Your task to perform on an android device: open app "Mercado Libre" (install if not already installed) Image 0: 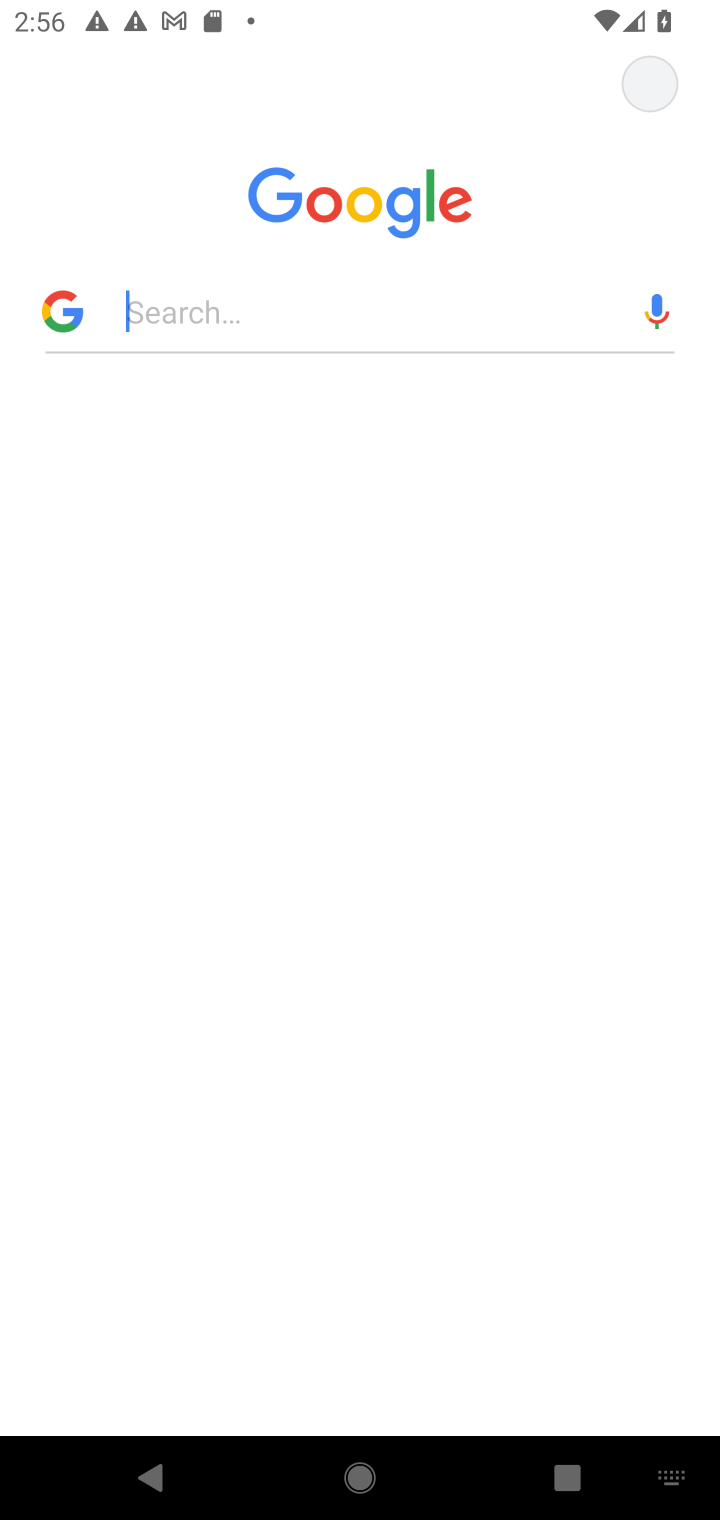
Step 0: press home button
Your task to perform on an android device: open app "Mercado Libre" (install if not already installed) Image 1: 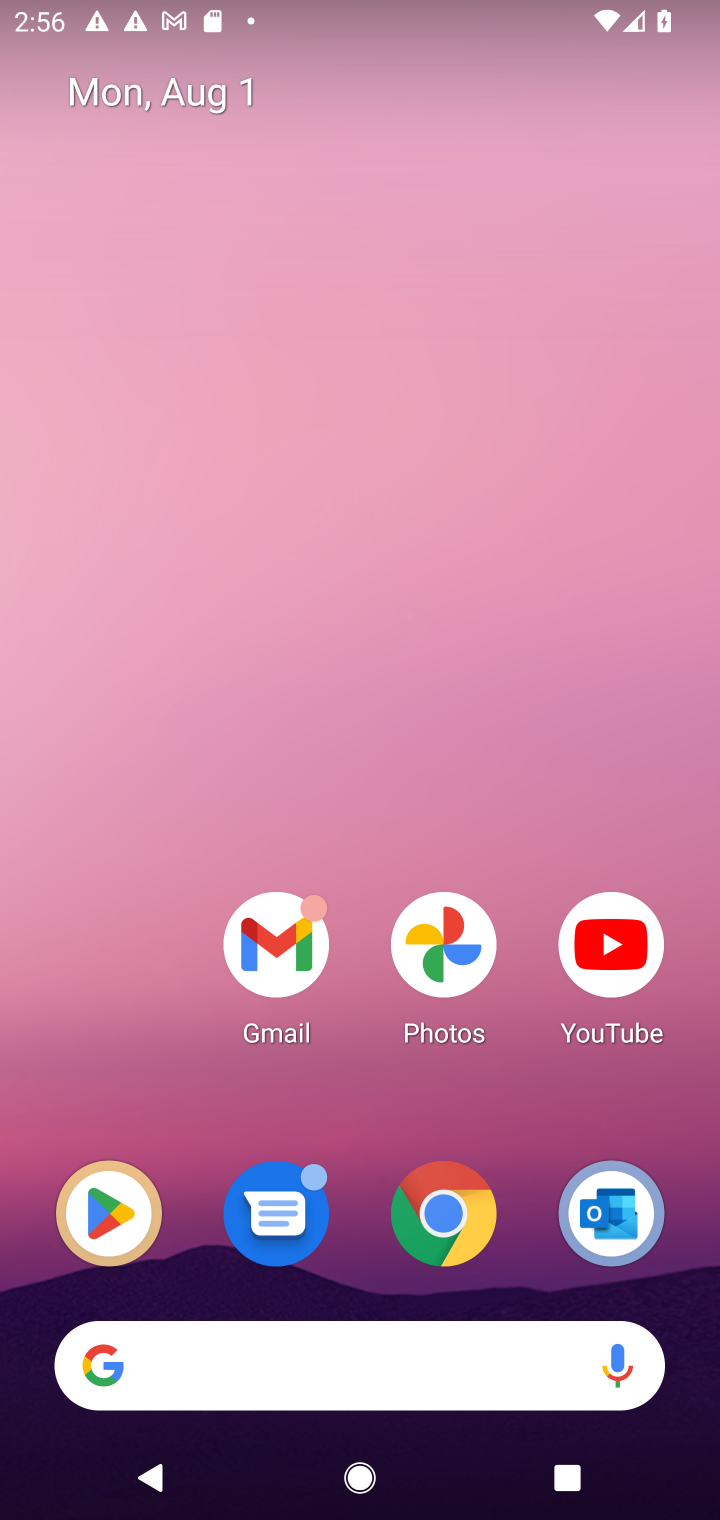
Step 1: drag from (507, 1062) to (487, 373)
Your task to perform on an android device: open app "Mercado Libre" (install if not already installed) Image 2: 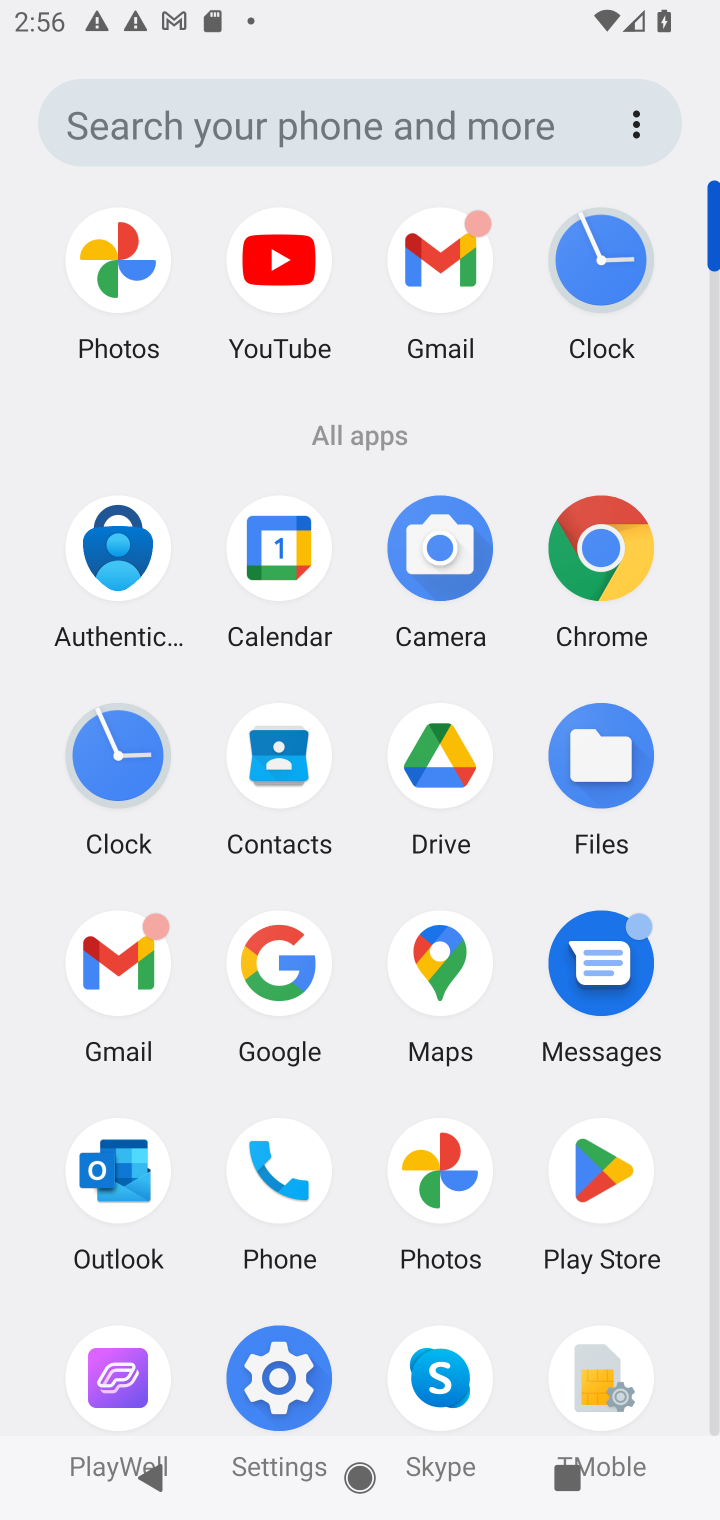
Step 2: click (622, 1157)
Your task to perform on an android device: open app "Mercado Libre" (install if not already installed) Image 3: 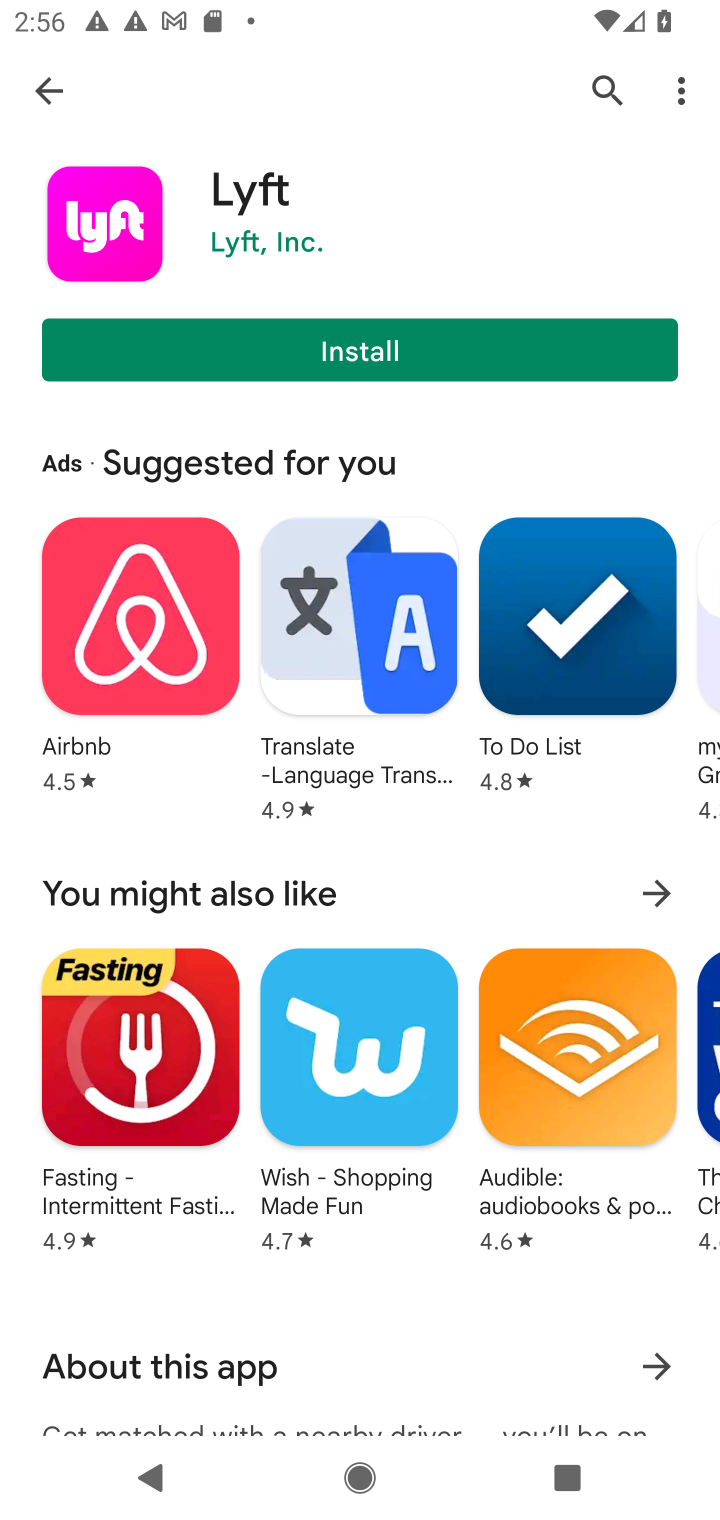
Step 3: click (599, 98)
Your task to perform on an android device: open app "Mercado Libre" (install if not already installed) Image 4: 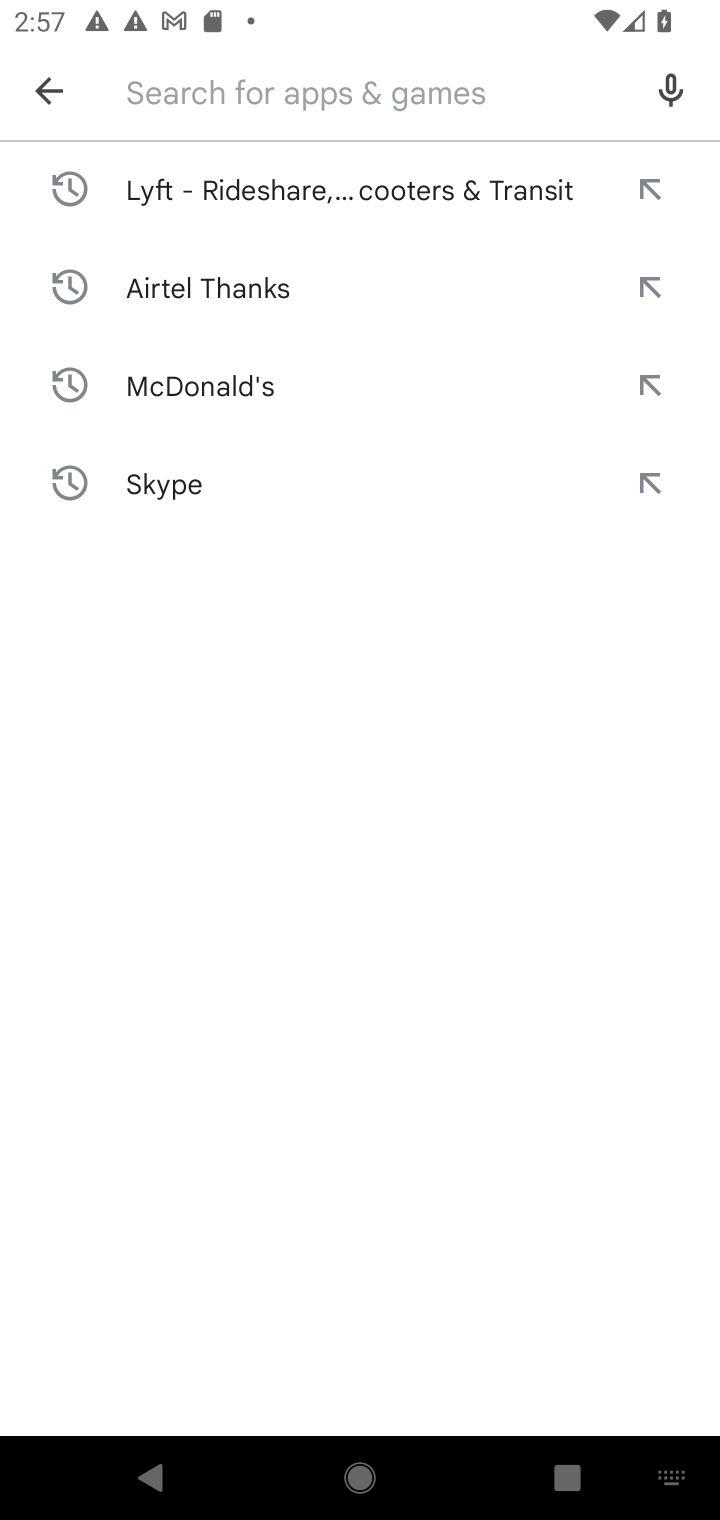
Step 4: type "Marcado Libre"
Your task to perform on an android device: open app "Mercado Libre" (install if not already installed) Image 5: 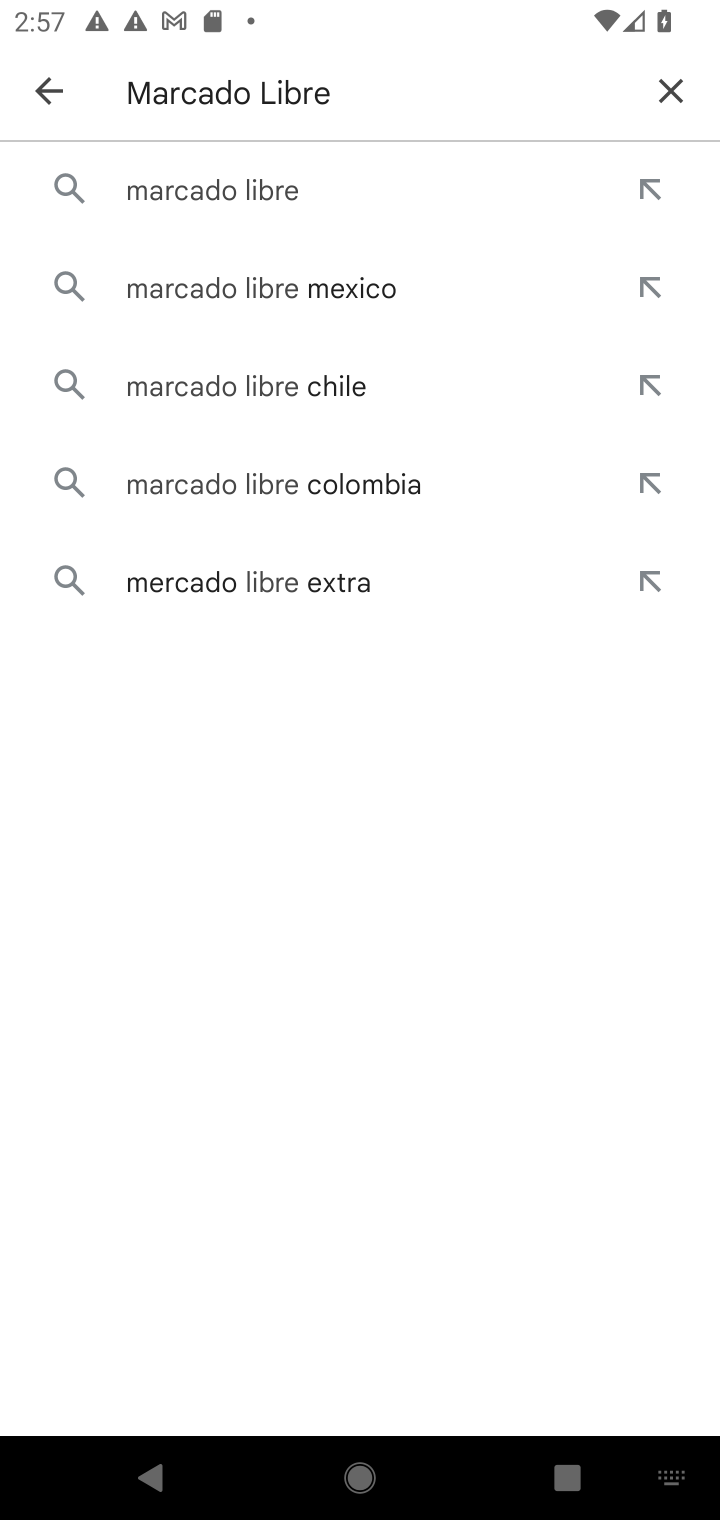
Step 5: press enter
Your task to perform on an android device: open app "Mercado Libre" (install if not already installed) Image 6: 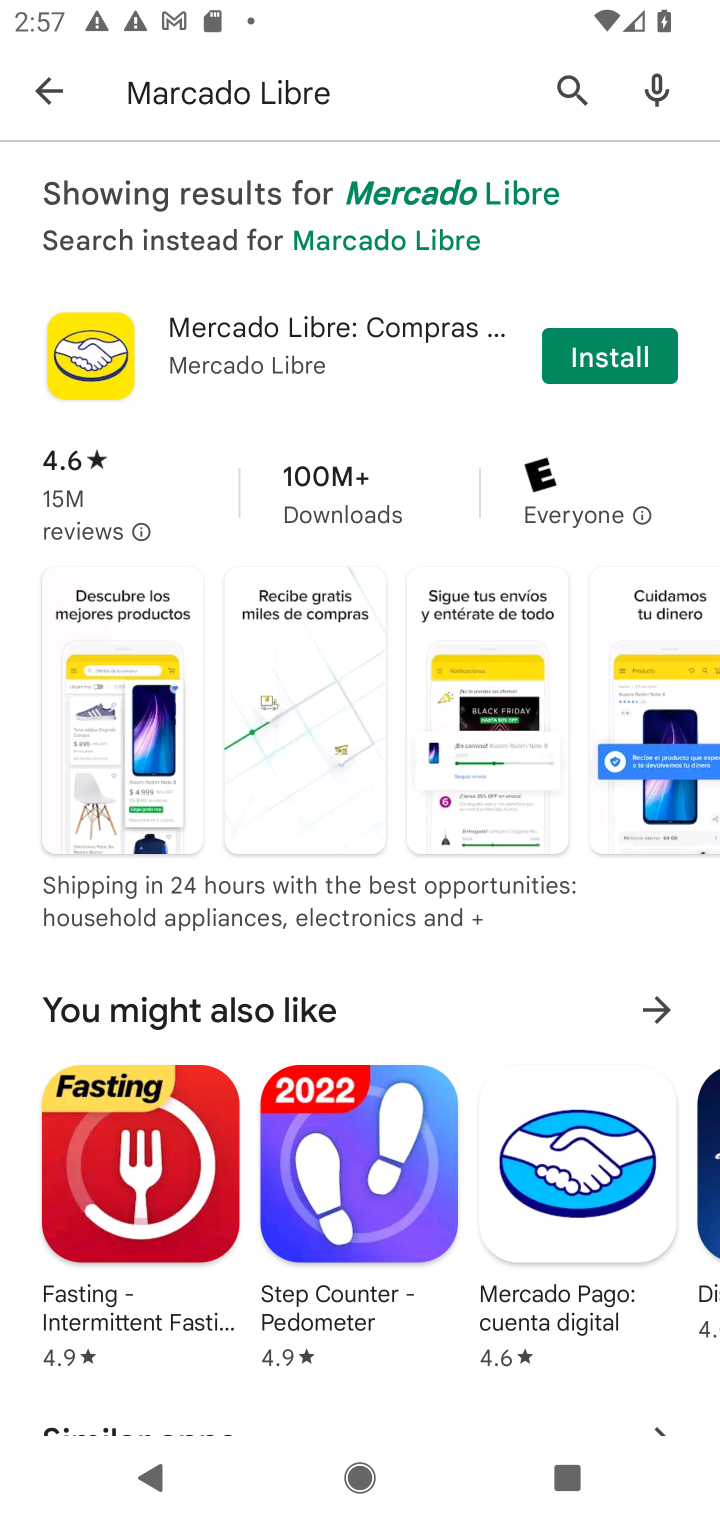
Step 6: click (595, 343)
Your task to perform on an android device: open app "Mercado Libre" (install if not already installed) Image 7: 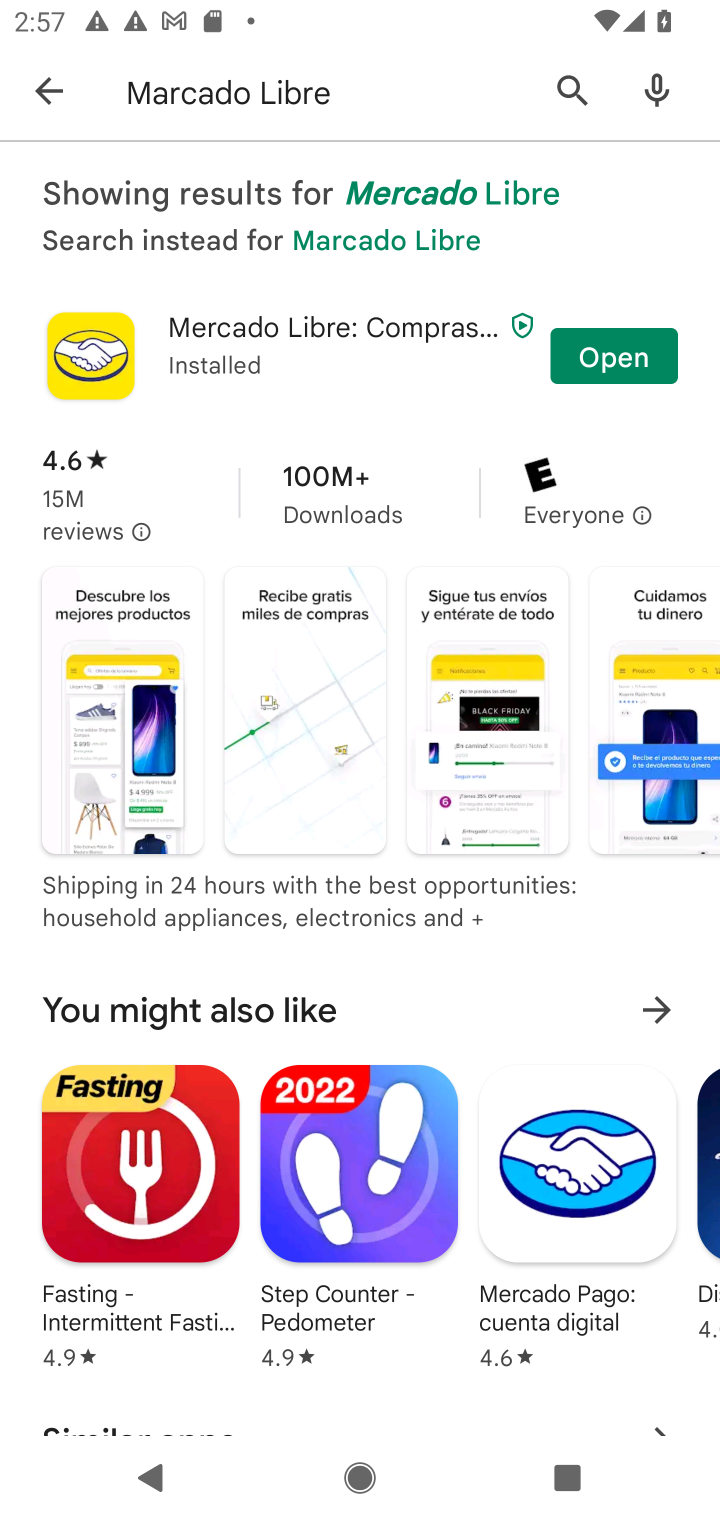
Step 7: click (595, 343)
Your task to perform on an android device: open app "Mercado Libre" (install if not already installed) Image 8: 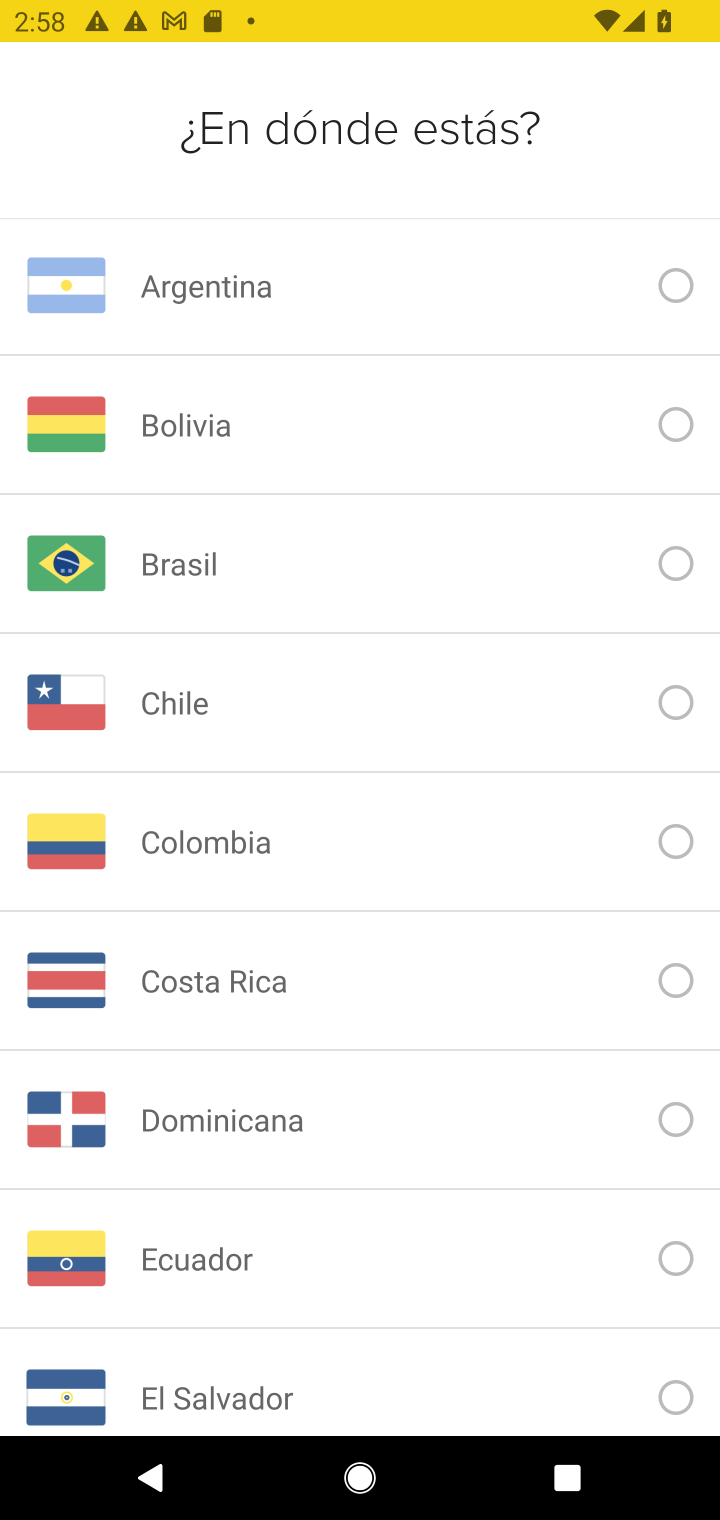
Step 8: task complete